Your task to perform on an android device: Turn off the flashlight Image 0: 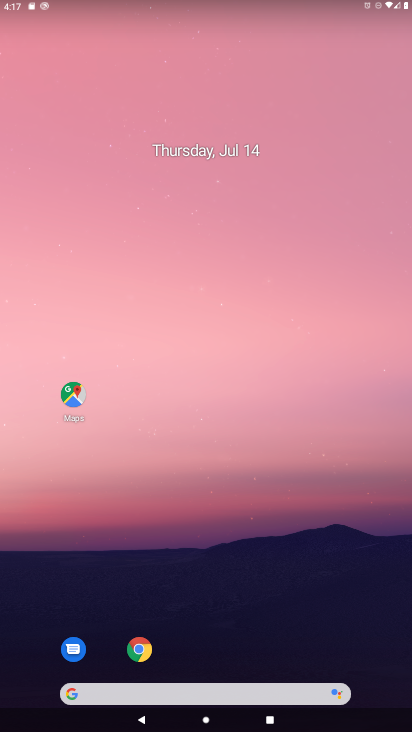
Step 0: drag from (214, 664) to (185, 170)
Your task to perform on an android device: Turn off the flashlight Image 1: 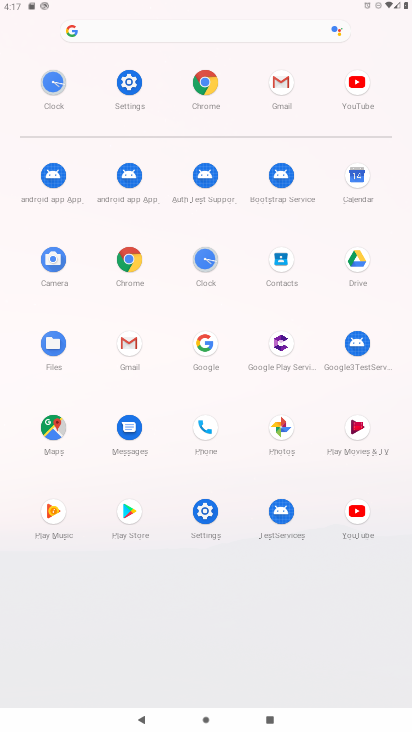
Step 1: click (210, 517)
Your task to perform on an android device: Turn off the flashlight Image 2: 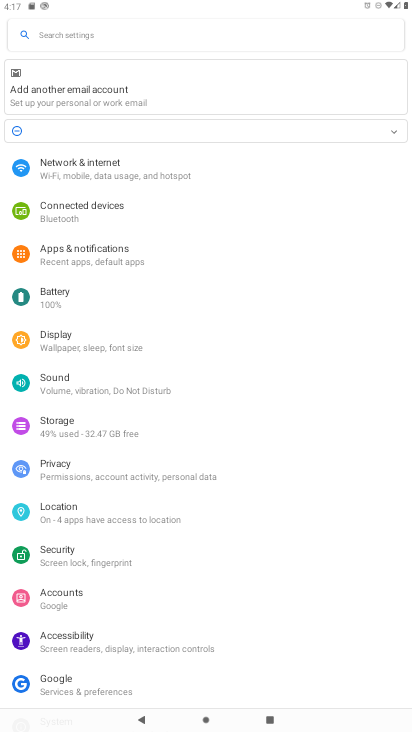
Step 2: click (209, 30)
Your task to perform on an android device: Turn off the flashlight Image 3: 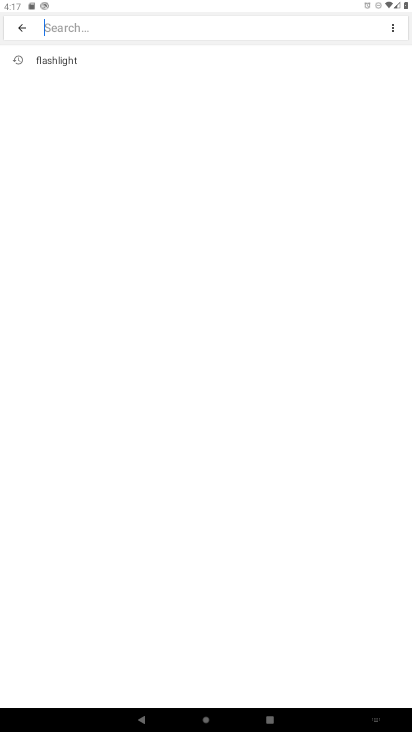
Step 3: type "flashlight"
Your task to perform on an android device: Turn off the flashlight Image 4: 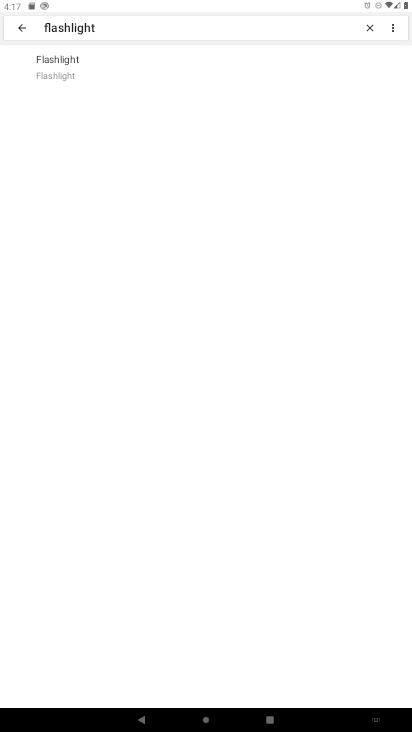
Step 4: click (105, 60)
Your task to perform on an android device: Turn off the flashlight Image 5: 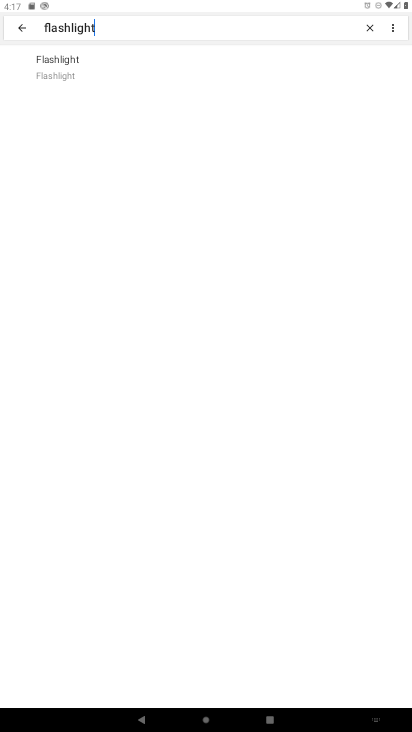
Step 5: click (79, 71)
Your task to perform on an android device: Turn off the flashlight Image 6: 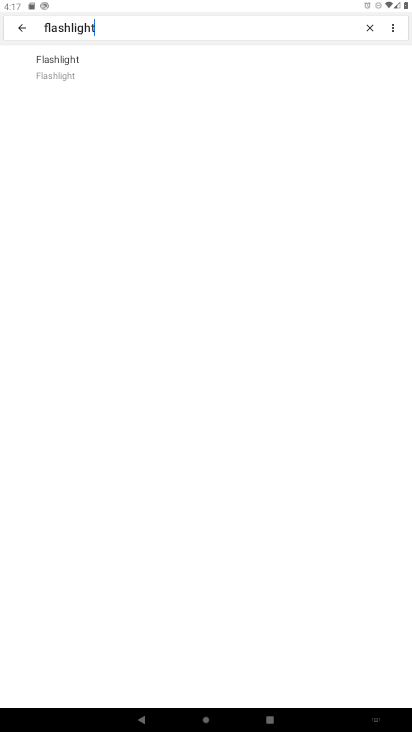
Step 6: task complete